Your task to perform on an android device: turn on airplane mode Image 0: 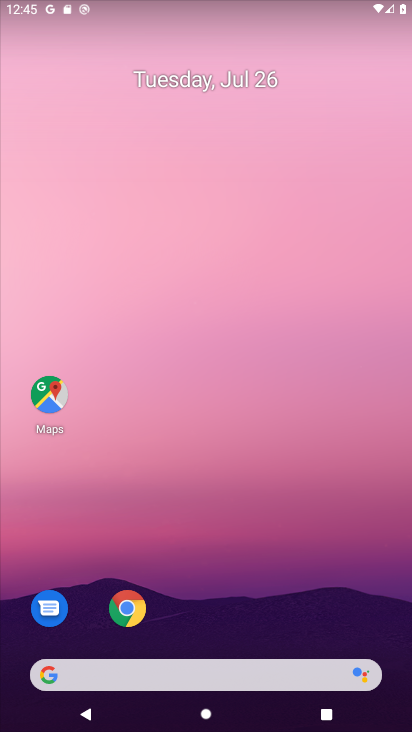
Step 0: task impossible